Your task to perform on an android device: Do I have any events tomorrow? Image 0: 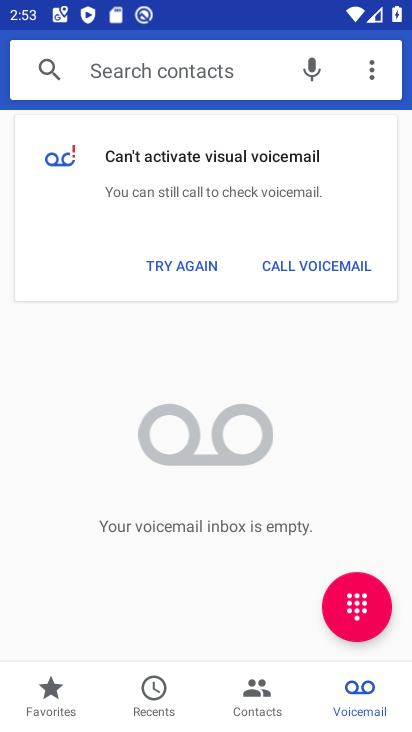
Step 0: press home button
Your task to perform on an android device: Do I have any events tomorrow? Image 1: 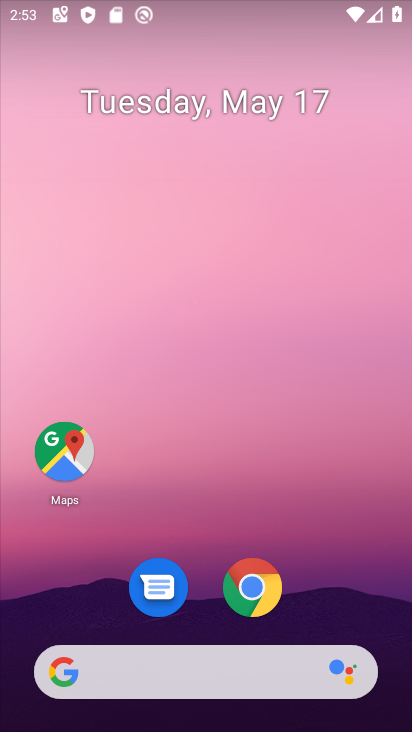
Step 1: drag from (224, 533) to (179, 0)
Your task to perform on an android device: Do I have any events tomorrow? Image 2: 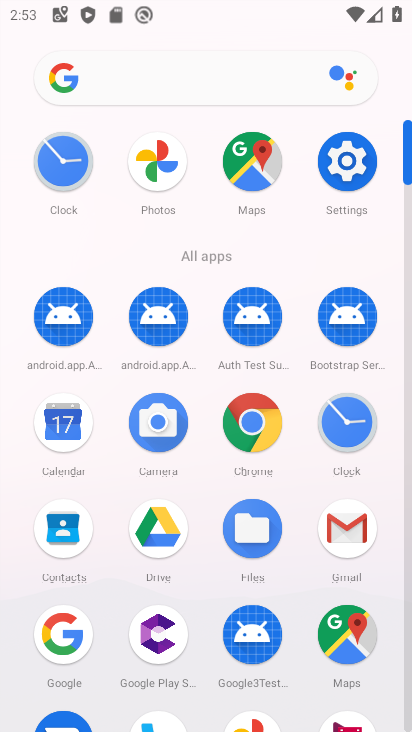
Step 2: click (74, 432)
Your task to perform on an android device: Do I have any events tomorrow? Image 3: 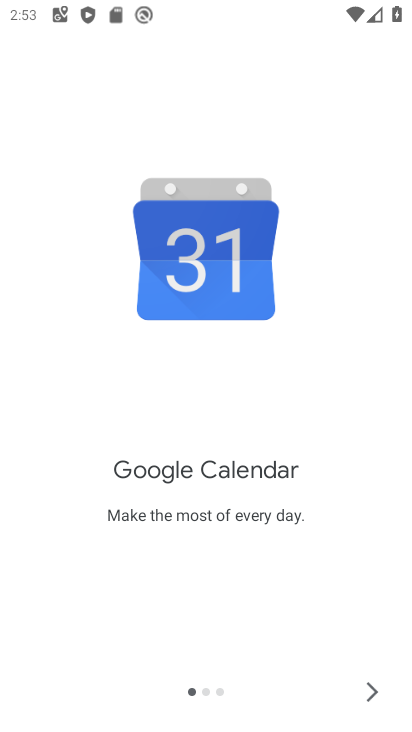
Step 3: click (375, 688)
Your task to perform on an android device: Do I have any events tomorrow? Image 4: 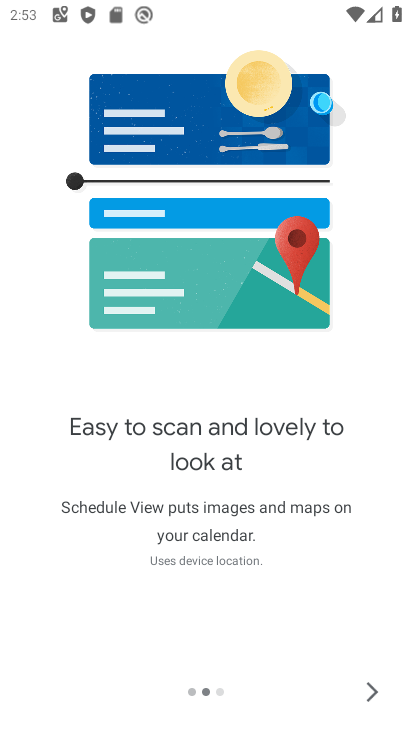
Step 4: click (375, 688)
Your task to perform on an android device: Do I have any events tomorrow? Image 5: 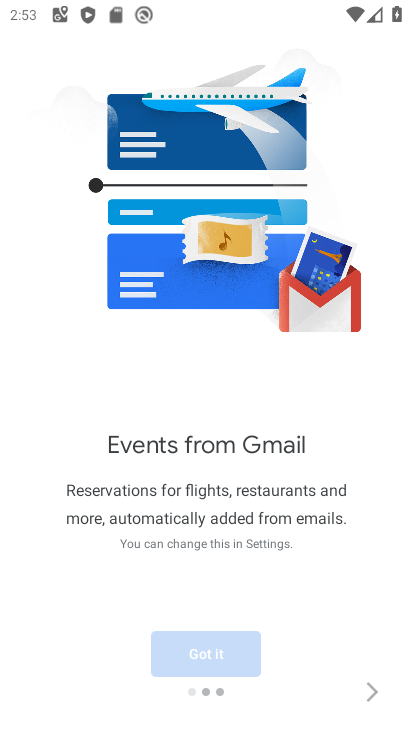
Step 5: click (375, 688)
Your task to perform on an android device: Do I have any events tomorrow? Image 6: 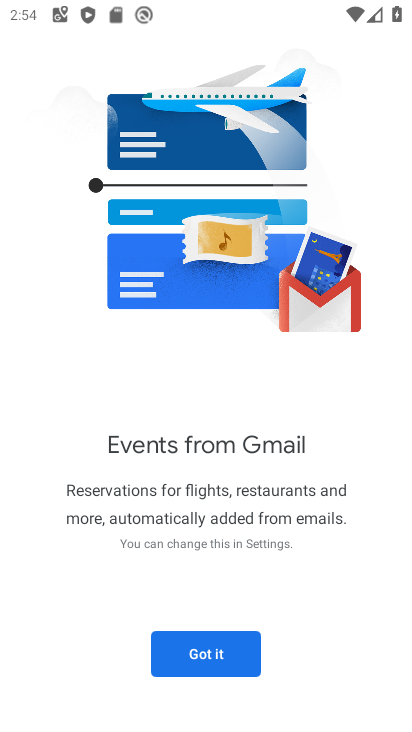
Step 6: click (223, 656)
Your task to perform on an android device: Do I have any events tomorrow? Image 7: 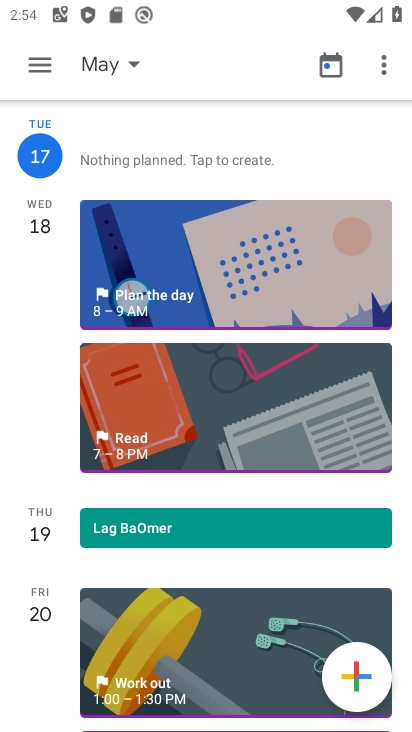
Step 7: click (130, 62)
Your task to perform on an android device: Do I have any events tomorrow? Image 8: 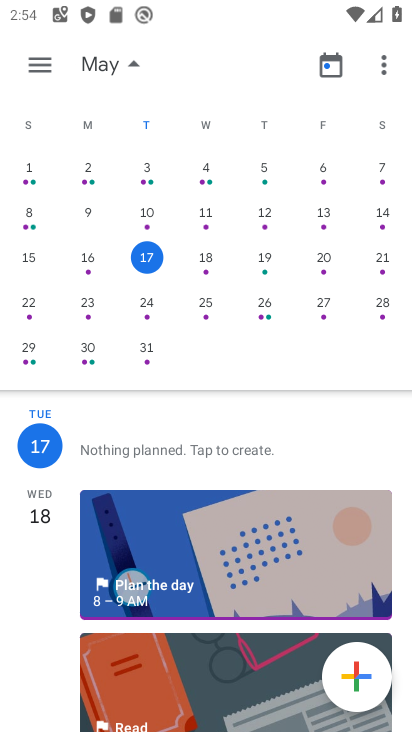
Step 8: click (200, 257)
Your task to perform on an android device: Do I have any events tomorrow? Image 9: 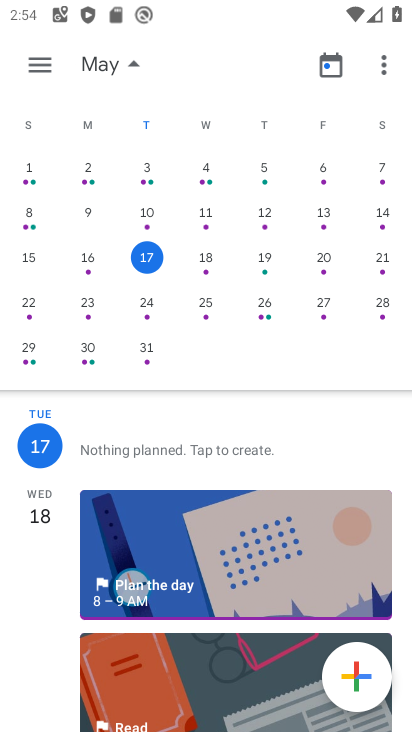
Step 9: click (197, 258)
Your task to perform on an android device: Do I have any events tomorrow? Image 10: 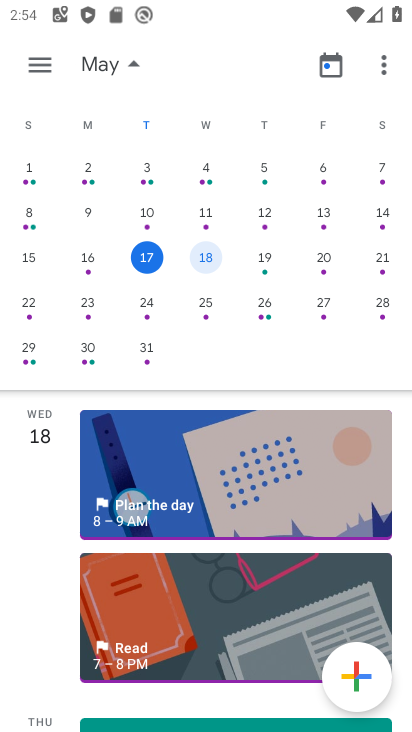
Step 10: task complete